Your task to perform on an android device: Go to sound settings Image 0: 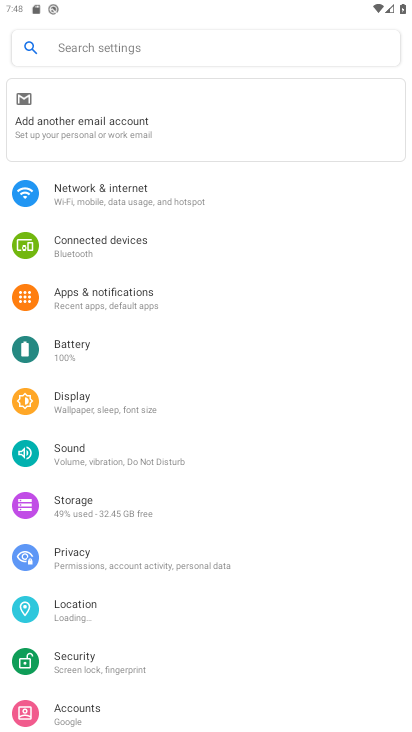
Step 0: press home button
Your task to perform on an android device: Go to sound settings Image 1: 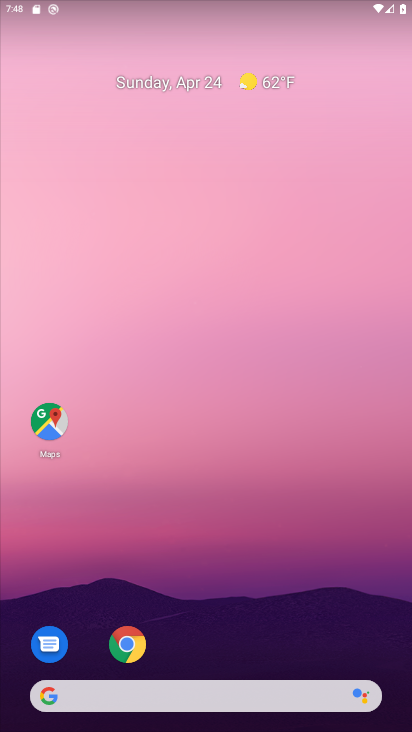
Step 1: drag from (215, 657) to (240, 187)
Your task to perform on an android device: Go to sound settings Image 2: 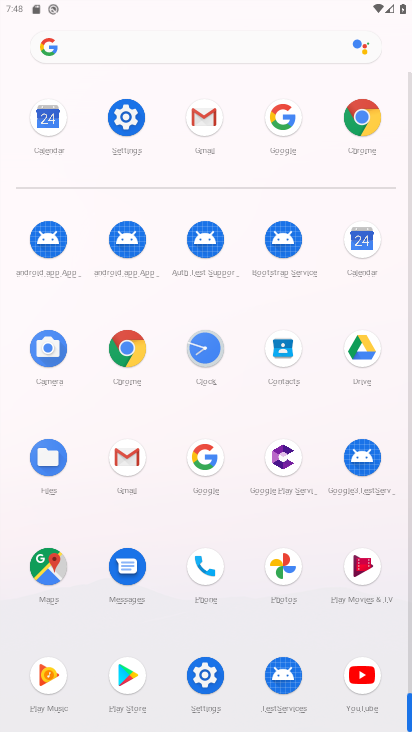
Step 2: click (202, 669)
Your task to perform on an android device: Go to sound settings Image 3: 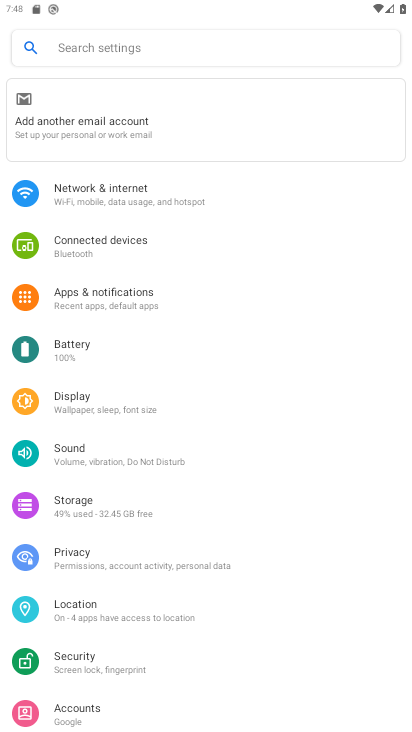
Step 3: click (101, 444)
Your task to perform on an android device: Go to sound settings Image 4: 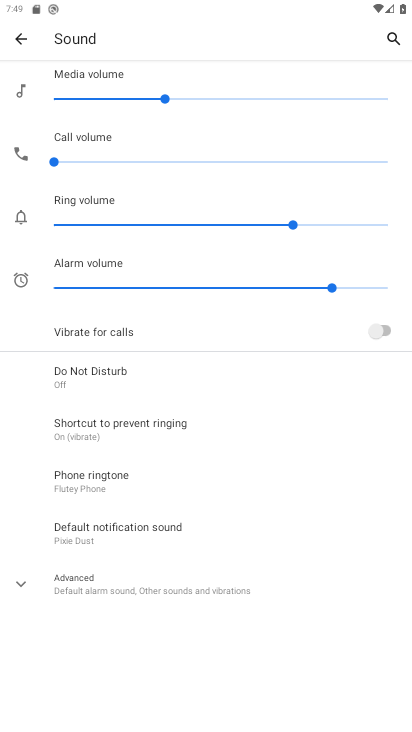
Step 4: click (20, 583)
Your task to perform on an android device: Go to sound settings Image 5: 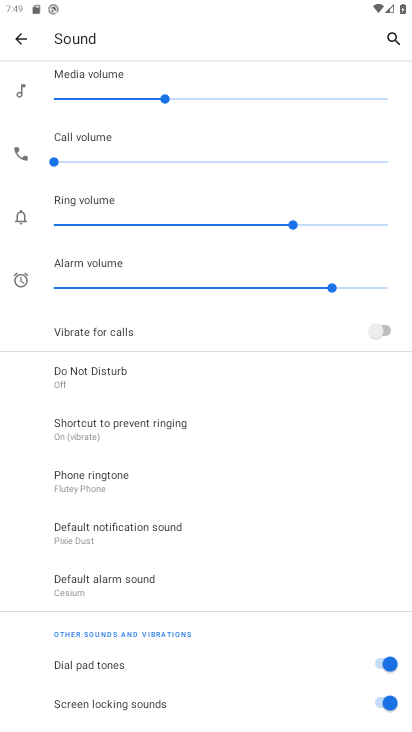
Step 5: task complete